Your task to perform on an android device: turn on the 12-hour format for clock Image 0: 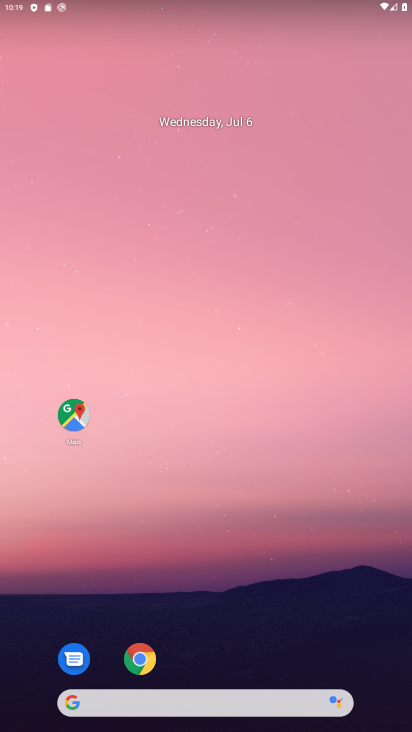
Step 0: drag from (259, 643) to (268, 12)
Your task to perform on an android device: turn on the 12-hour format for clock Image 1: 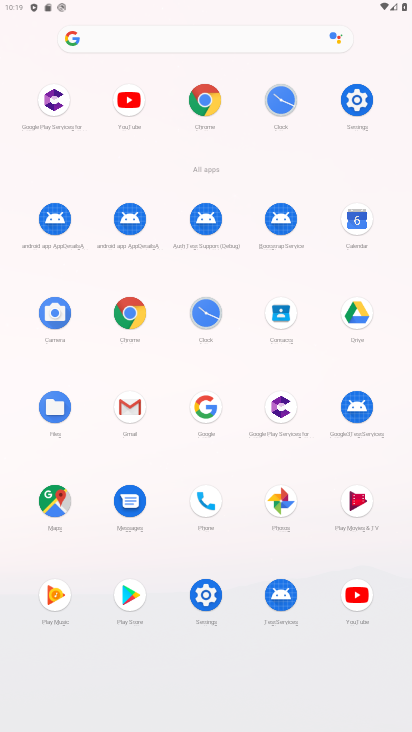
Step 1: click (288, 96)
Your task to perform on an android device: turn on the 12-hour format for clock Image 2: 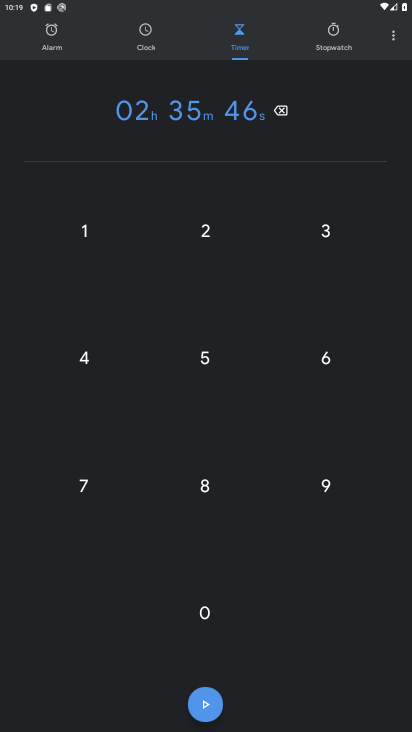
Step 2: click (148, 26)
Your task to perform on an android device: turn on the 12-hour format for clock Image 3: 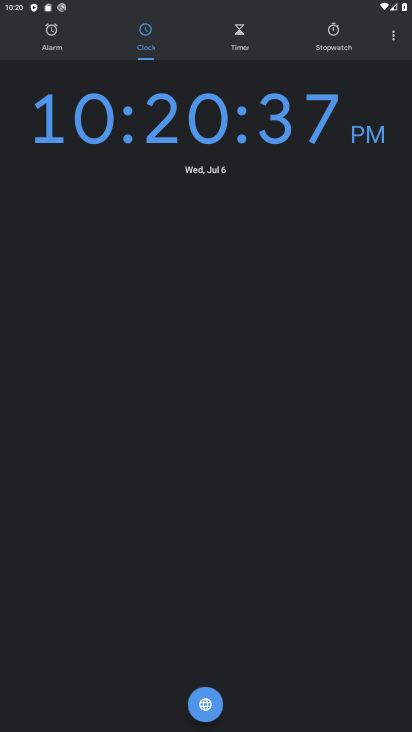
Step 3: click (393, 28)
Your task to perform on an android device: turn on the 12-hour format for clock Image 4: 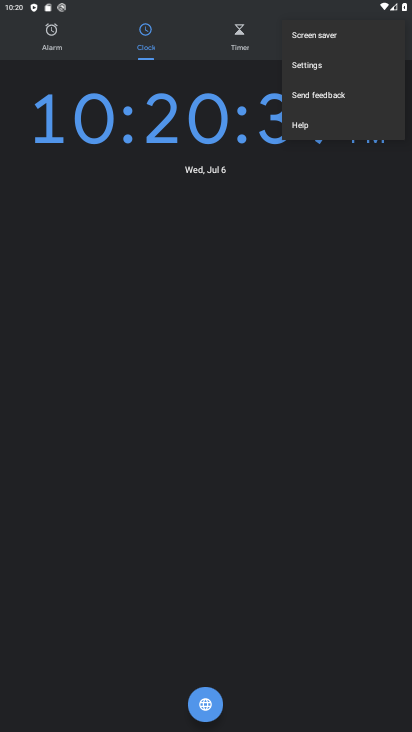
Step 4: click (324, 57)
Your task to perform on an android device: turn on the 12-hour format for clock Image 5: 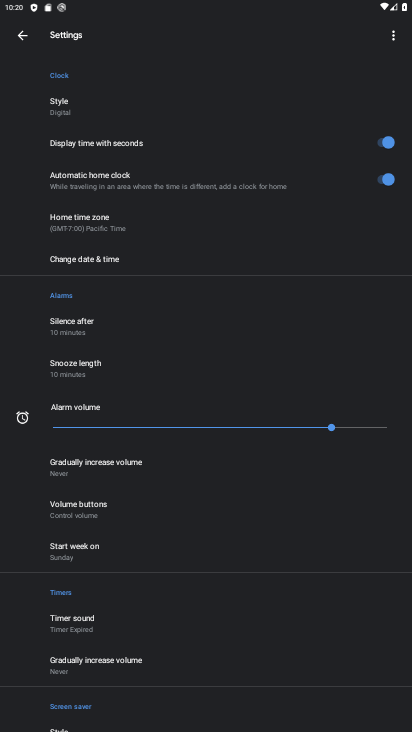
Step 5: click (138, 257)
Your task to perform on an android device: turn on the 12-hour format for clock Image 6: 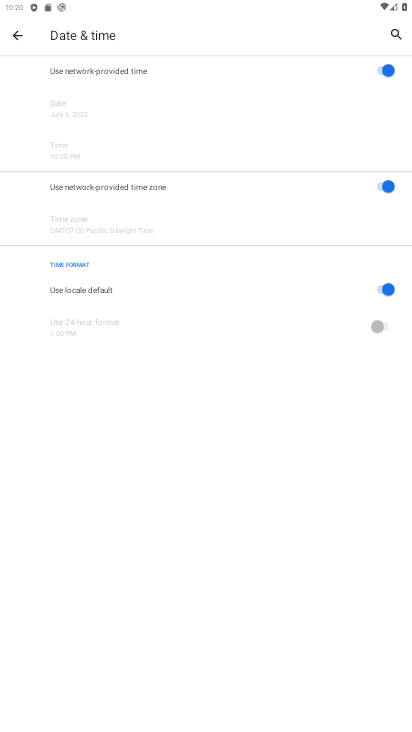
Step 6: task complete